Your task to perform on an android device: Go to battery settings Image 0: 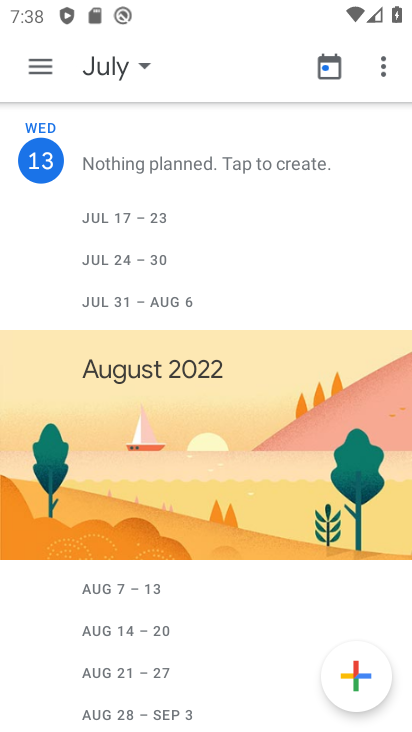
Step 0: press home button
Your task to perform on an android device: Go to battery settings Image 1: 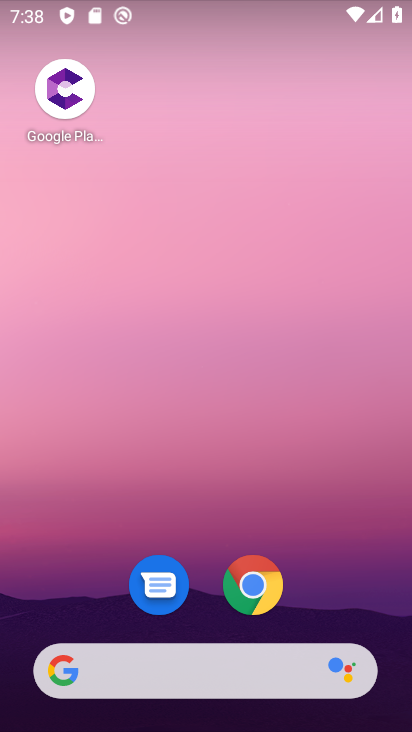
Step 1: drag from (234, 501) to (219, 3)
Your task to perform on an android device: Go to battery settings Image 2: 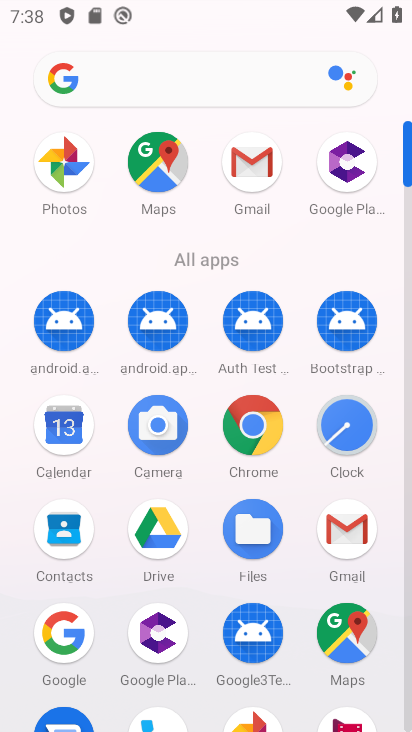
Step 2: drag from (199, 510) to (180, 108)
Your task to perform on an android device: Go to battery settings Image 3: 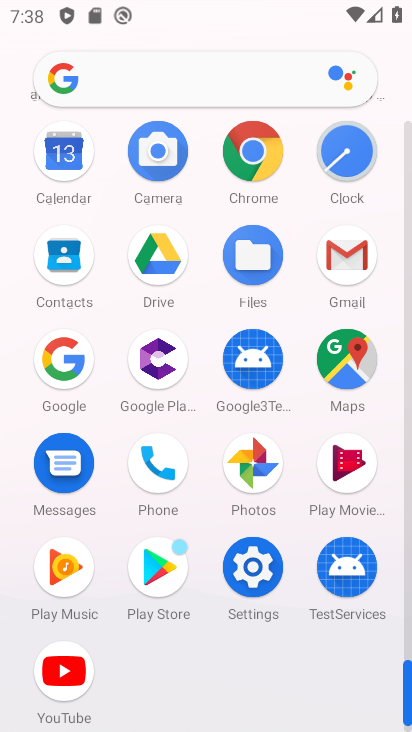
Step 3: click (248, 566)
Your task to perform on an android device: Go to battery settings Image 4: 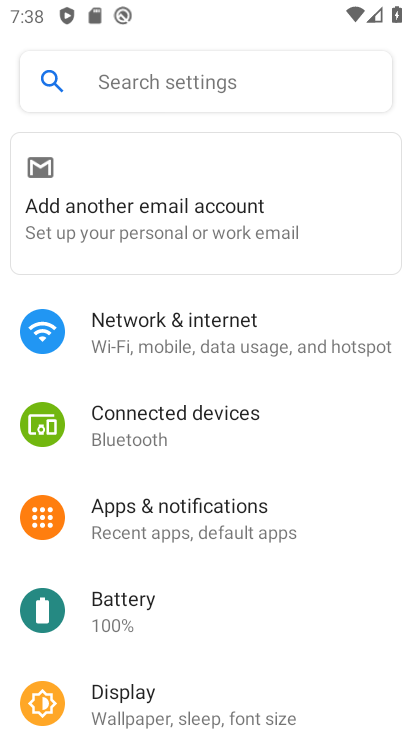
Step 4: click (126, 617)
Your task to perform on an android device: Go to battery settings Image 5: 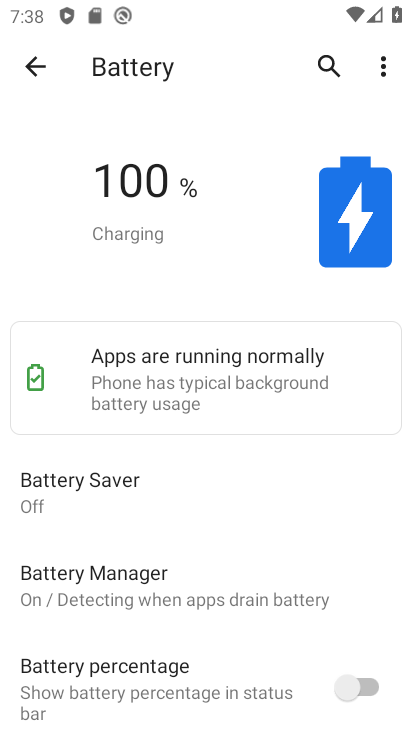
Step 5: task complete